Your task to perform on an android device: Go to calendar. Show me events next week Image 0: 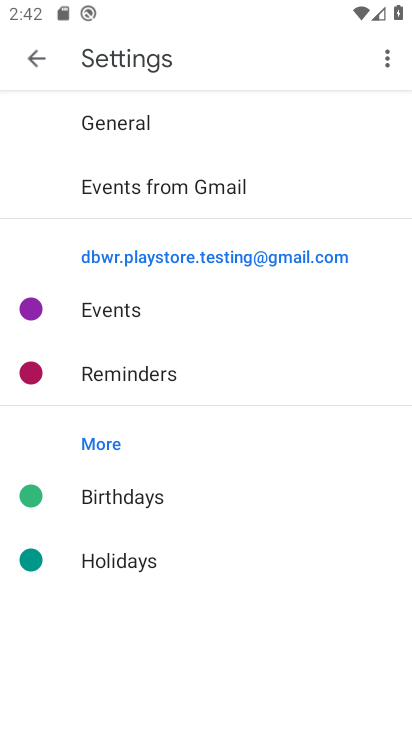
Step 0: press home button
Your task to perform on an android device: Go to calendar. Show me events next week Image 1: 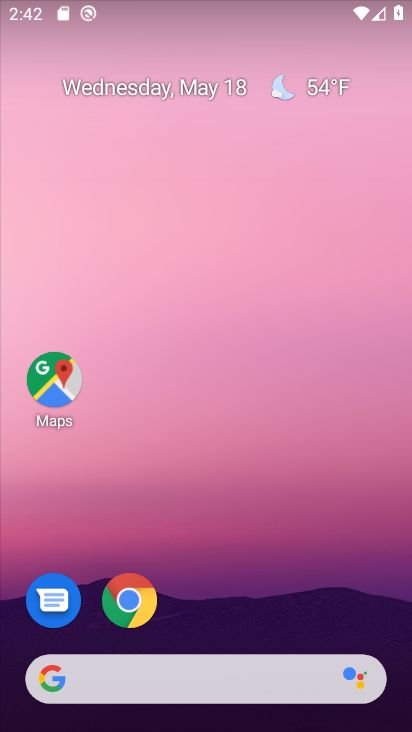
Step 1: drag from (196, 607) to (264, 101)
Your task to perform on an android device: Go to calendar. Show me events next week Image 2: 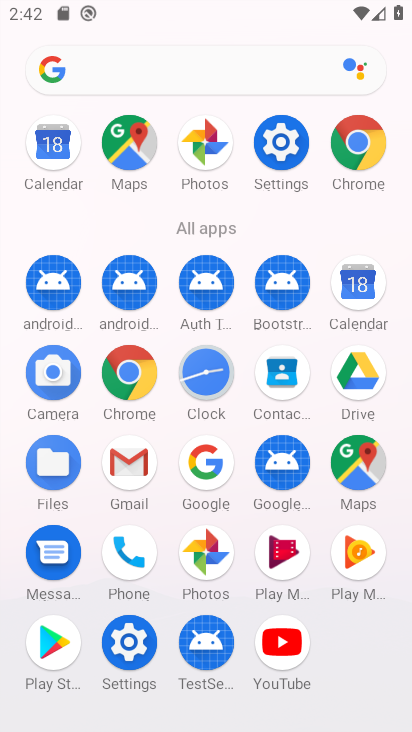
Step 2: click (366, 299)
Your task to perform on an android device: Go to calendar. Show me events next week Image 3: 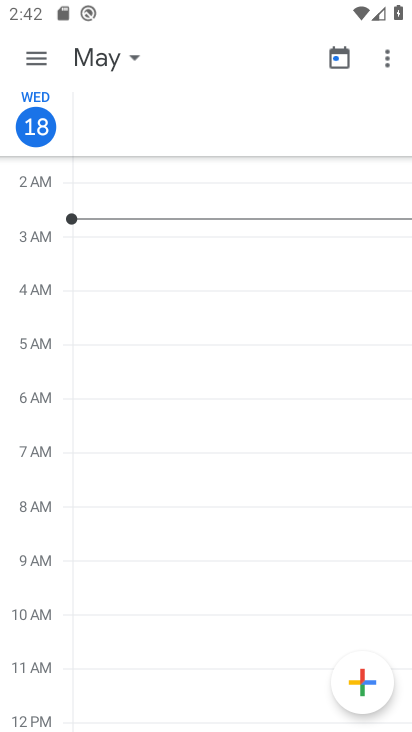
Step 3: click (42, 63)
Your task to perform on an android device: Go to calendar. Show me events next week Image 4: 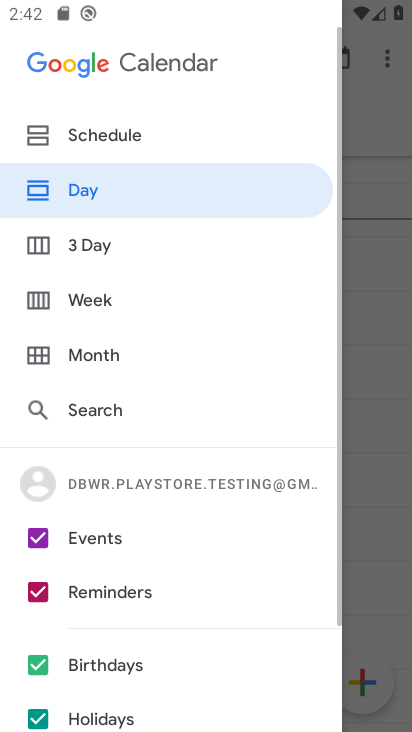
Step 4: click (99, 295)
Your task to perform on an android device: Go to calendar. Show me events next week Image 5: 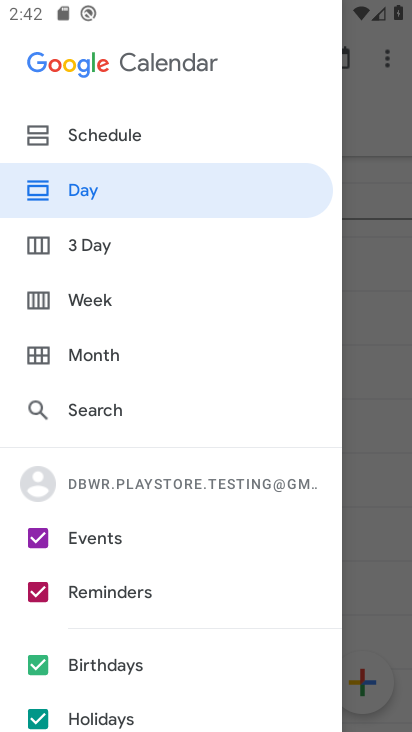
Step 5: click (99, 300)
Your task to perform on an android device: Go to calendar. Show me events next week Image 6: 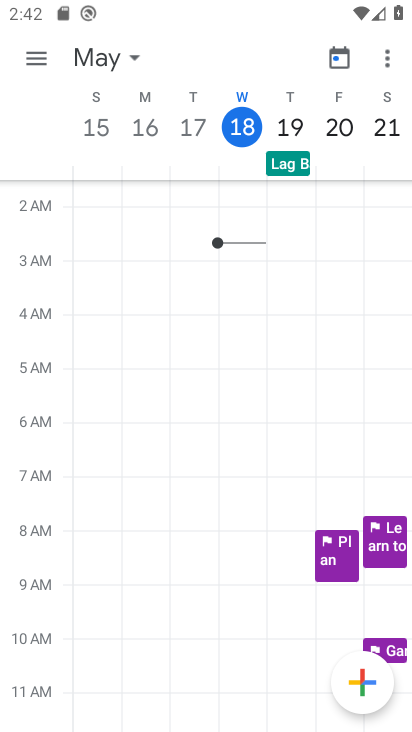
Step 6: task complete